Your task to perform on an android device: turn notification dots on Image 0: 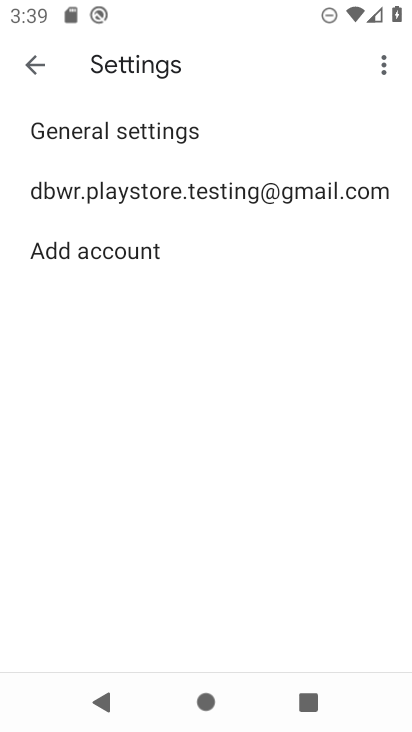
Step 0: press home button
Your task to perform on an android device: turn notification dots on Image 1: 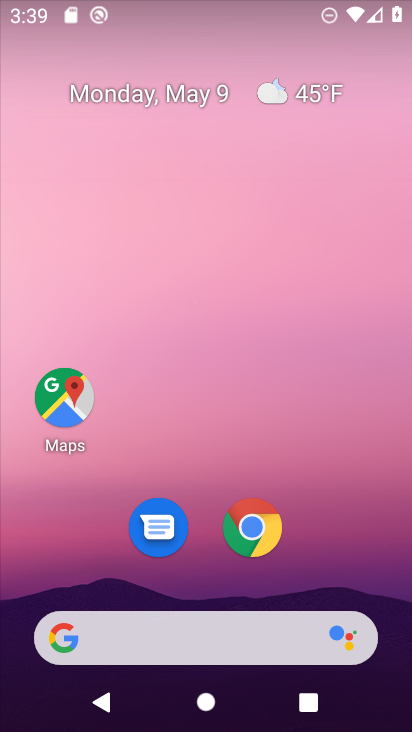
Step 1: drag from (348, 539) to (259, 48)
Your task to perform on an android device: turn notification dots on Image 2: 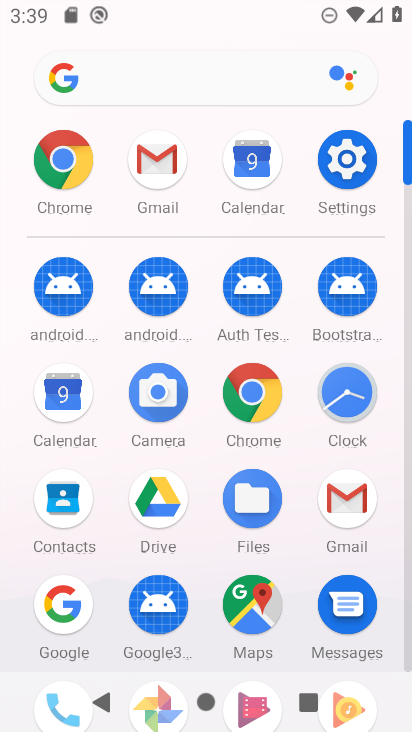
Step 2: click (353, 158)
Your task to perform on an android device: turn notification dots on Image 3: 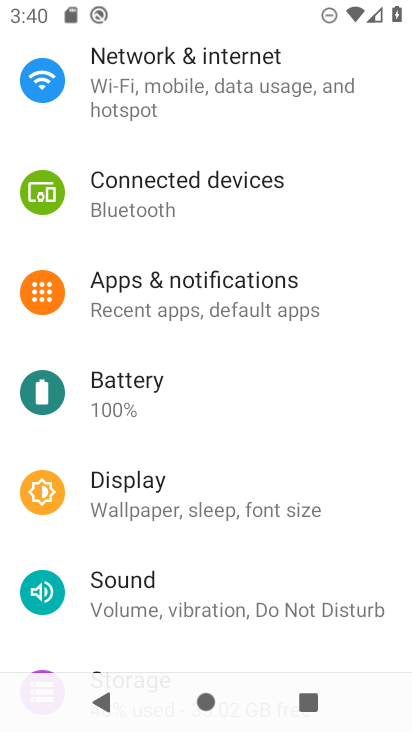
Step 3: click (297, 273)
Your task to perform on an android device: turn notification dots on Image 4: 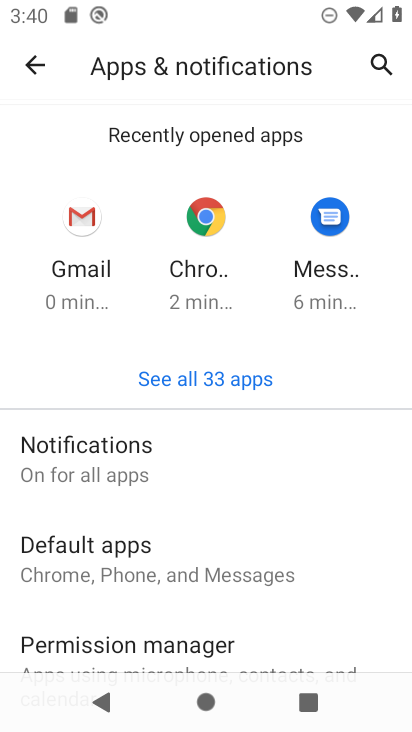
Step 4: click (260, 463)
Your task to perform on an android device: turn notification dots on Image 5: 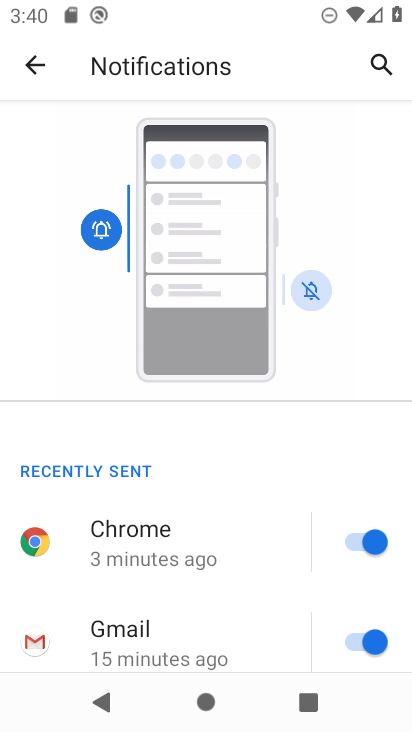
Step 5: drag from (274, 641) to (167, 301)
Your task to perform on an android device: turn notification dots on Image 6: 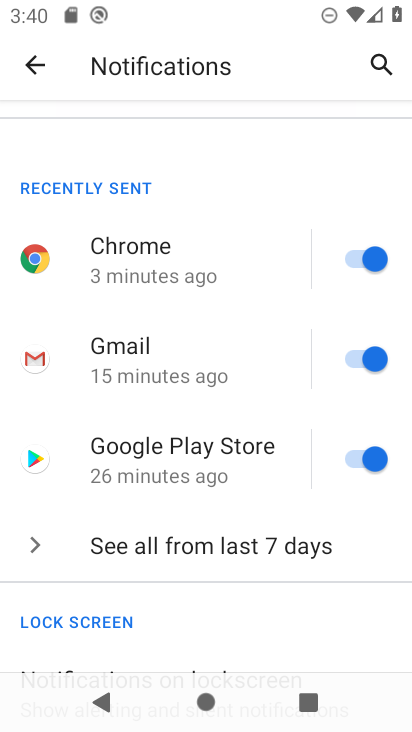
Step 6: drag from (222, 608) to (184, 99)
Your task to perform on an android device: turn notification dots on Image 7: 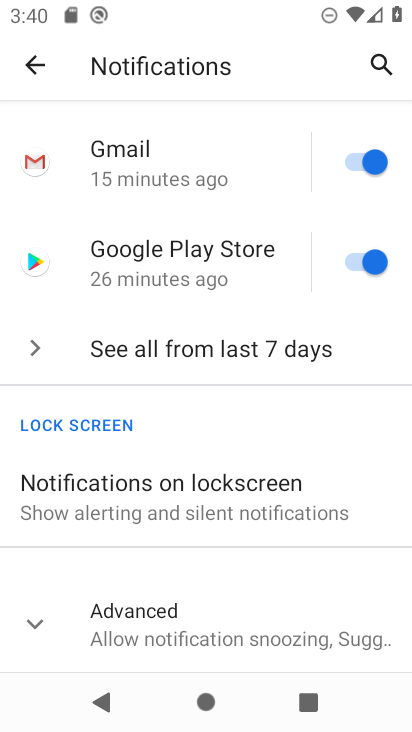
Step 7: click (320, 626)
Your task to perform on an android device: turn notification dots on Image 8: 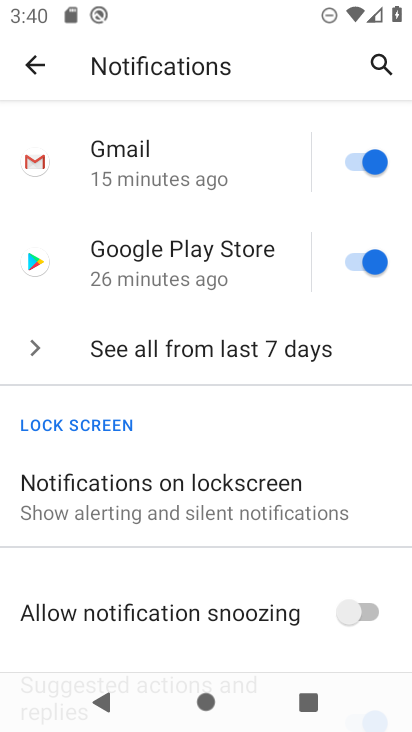
Step 8: task complete